Your task to perform on an android device: turn off smart reply in the gmail app Image 0: 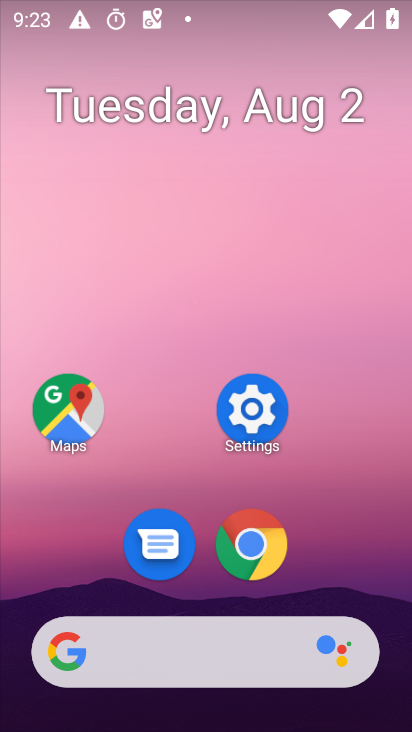
Step 0: drag from (171, 660) to (310, 117)
Your task to perform on an android device: turn off smart reply in the gmail app Image 1: 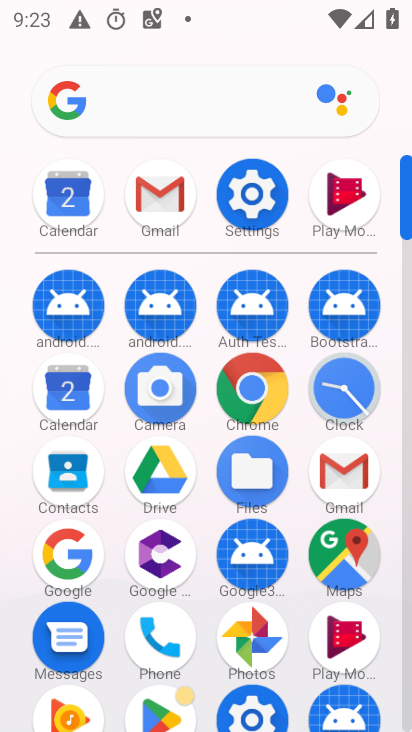
Step 1: click (146, 200)
Your task to perform on an android device: turn off smart reply in the gmail app Image 2: 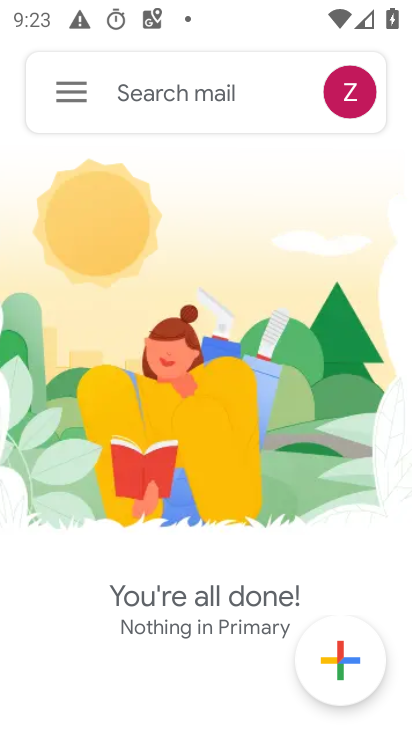
Step 2: click (76, 96)
Your task to perform on an android device: turn off smart reply in the gmail app Image 3: 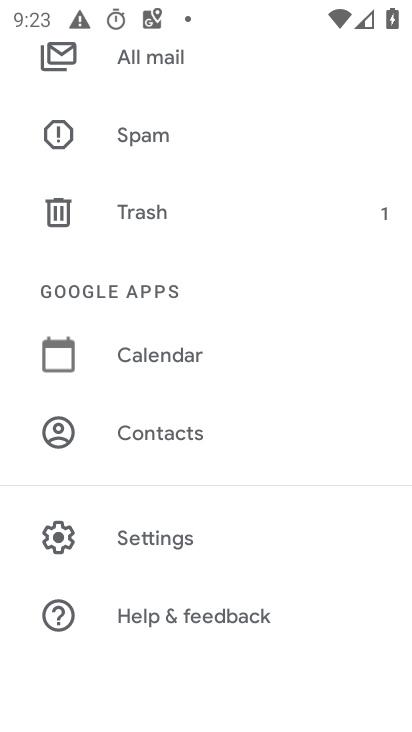
Step 3: click (178, 534)
Your task to perform on an android device: turn off smart reply in the gmail app Image 4: 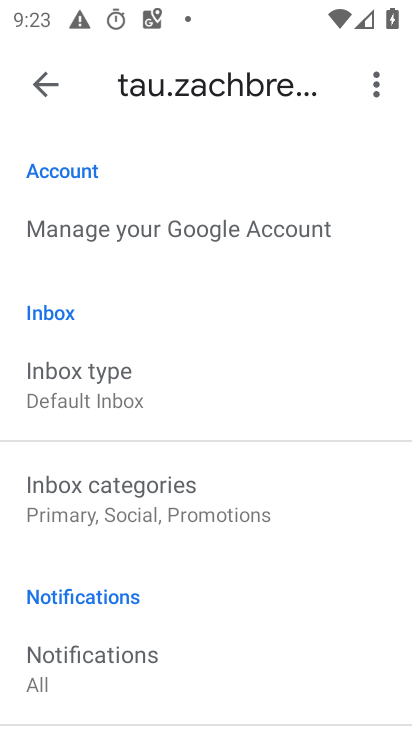
Step 4: drag from (204, 585) to (351, 102)
Your task to perform on an android device: turn off smart reply in the gmail app Image 5: 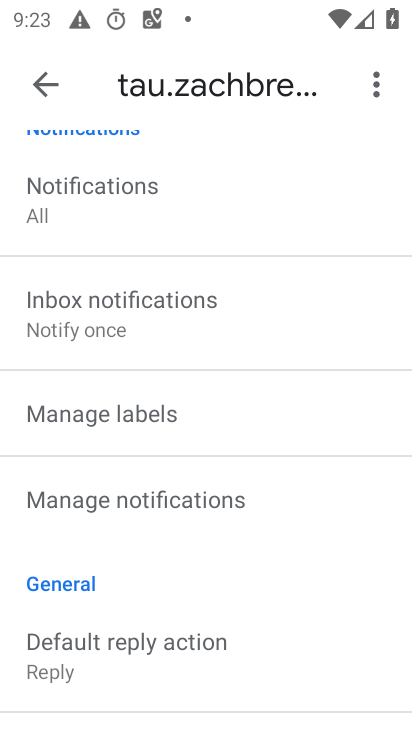
Step 5: drag from (253, 650) to (402, 17)
Your task to perform on an android device: turn off smart reply in the gmail app Image 6: 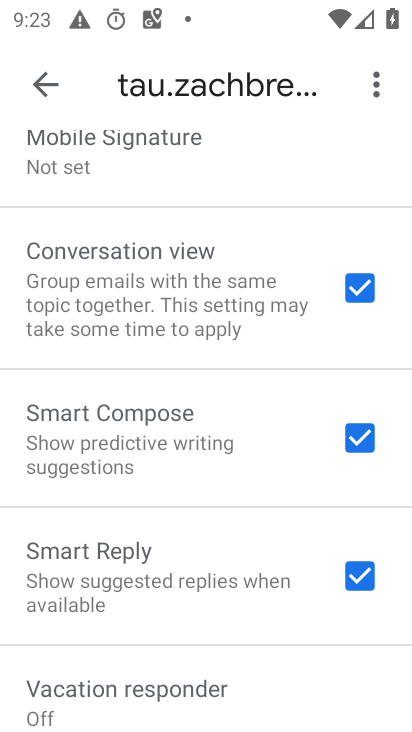
Step 6: drag from (202, 632) to (306, 182)
Your task to perform on an android device: turn off smart reply in the gmail app Image 7: 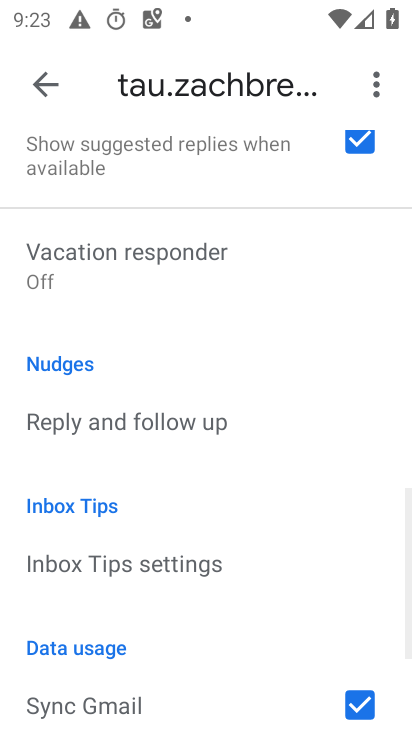
Step 7: drag from (261, 313) to (226, 499)
Your task to perform on an android device: turn off smart reply in the gmail app Image 8: 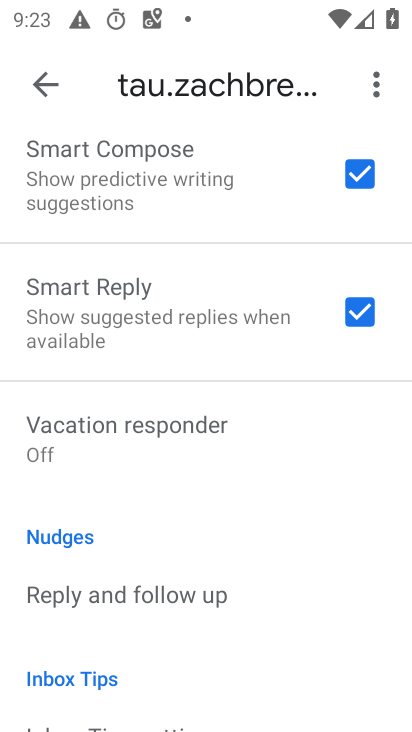
Step 8: click (367, 306)
Your task to perform on an android device: turn off smart reply in the gmail app Image 9: 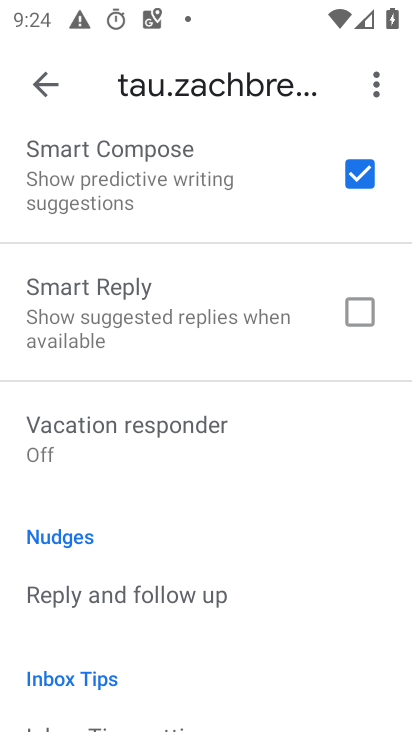
Step 9: task complete